Your task to perform on an android device: make emails show in primary in the gmail app Image 0: 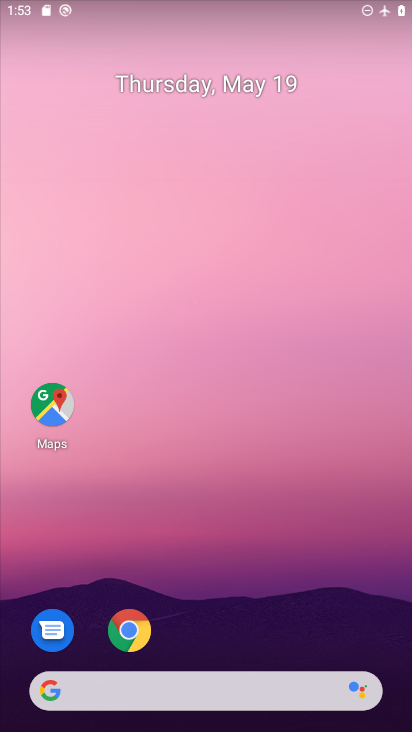
Step 0: drag from (176, 656) to (96, 184)
Your task to perform on an android device: make emails show in primary in the gmail app Image 1: 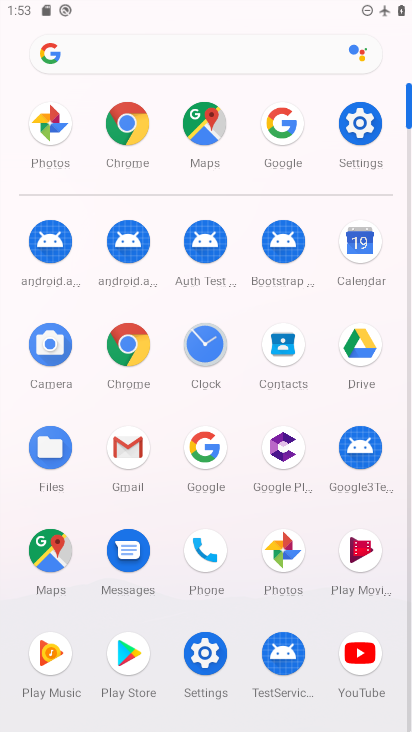
Step 1: click (121, 447)
Your task to perform on an android device: make emails show in primary in the gmail app Image 2: 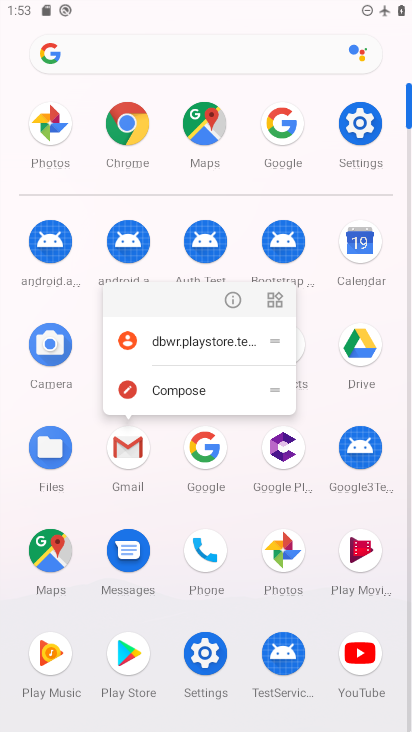
Step 2: click (116, 456)
Your task to perform on an android device: make emails show in primary in the gmail app Image 3: 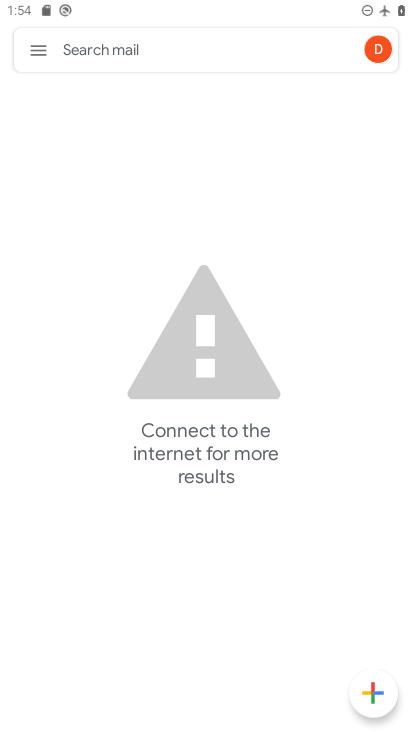
Step 3: click (37, 40)
Your task to perform on an android device: make emails show in primary in the gmail app Image 4: 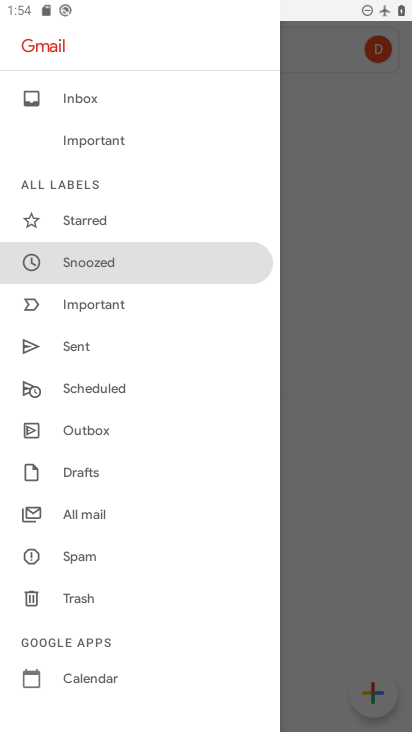
Step 4: drag from (99, 224) to (101, 635)
Your task to perform on an android device: make emails show in primary in the gmail app Image 5: 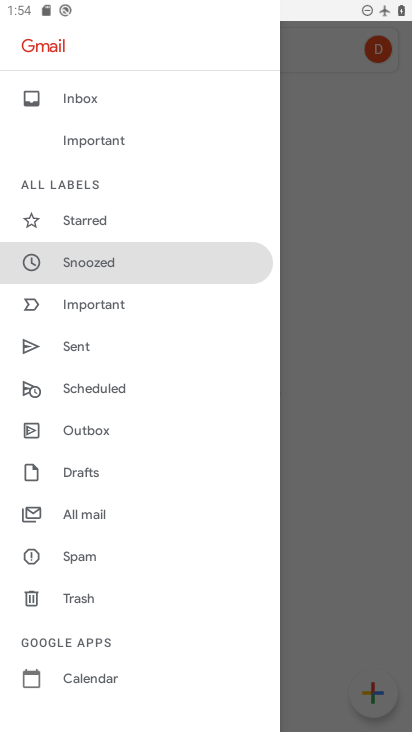
Step 5: drag from (106, 636) to (51, 103)
Your task to perform on an android device: make emails show in primary in the gmail app Image 6: 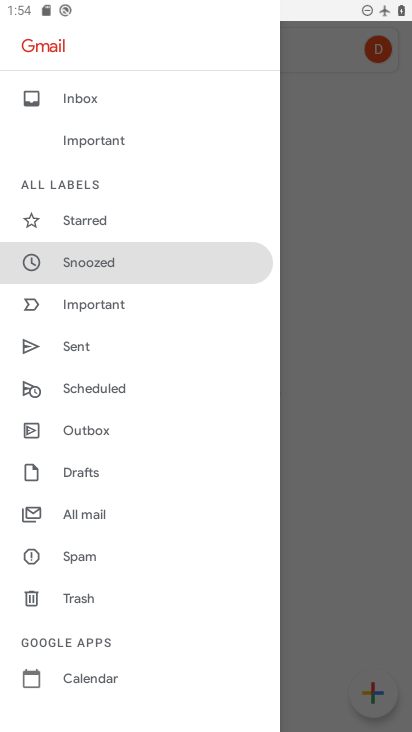
Step 6: drag from (115, 546) to (117, 98)
Your task to perform on an android device: make emails show in primary in the gmail app Image 7: 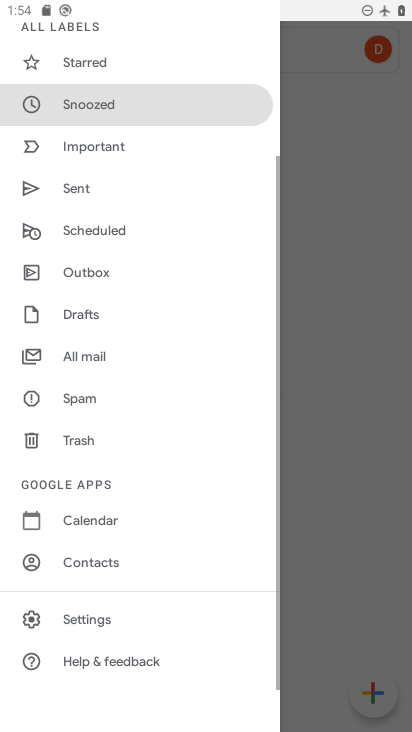
Step 7: click (72, 624)
Your task to perform on an android device: make emails show in primary in the gmail app Image 8: 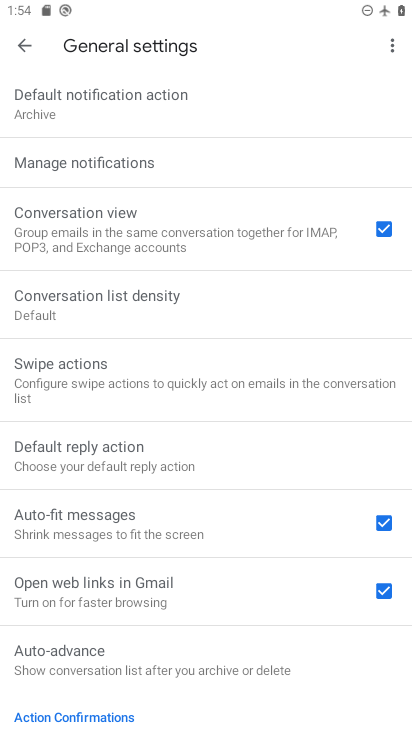
Step 8: click (7, 34)
Your task to perform on an android device: make emails show in primary in the gmail app Image 9: 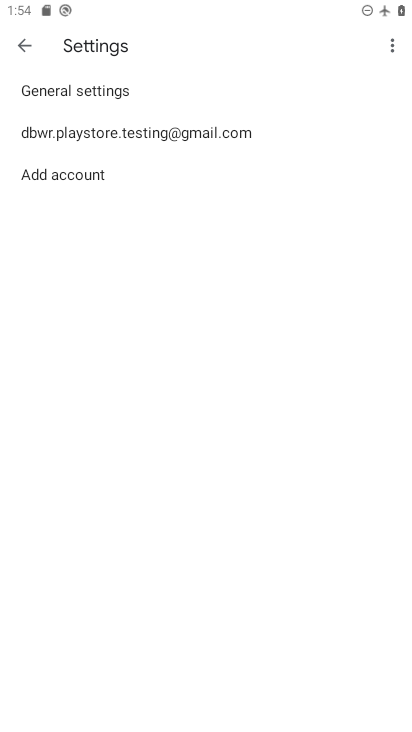
Step 9: click (71, 132)
Your task to perform on an android device: make emails show in primary in the gmail app Image 10: 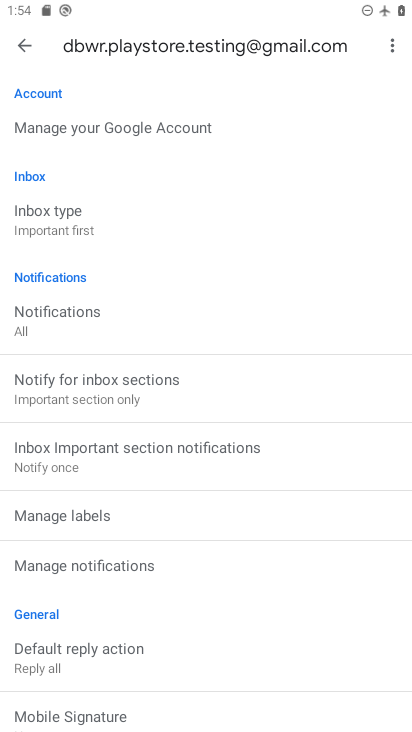
Step 10: click (75, 237)
Your task to perform on an android device: make emails show in primary in the gmail app Image 11: 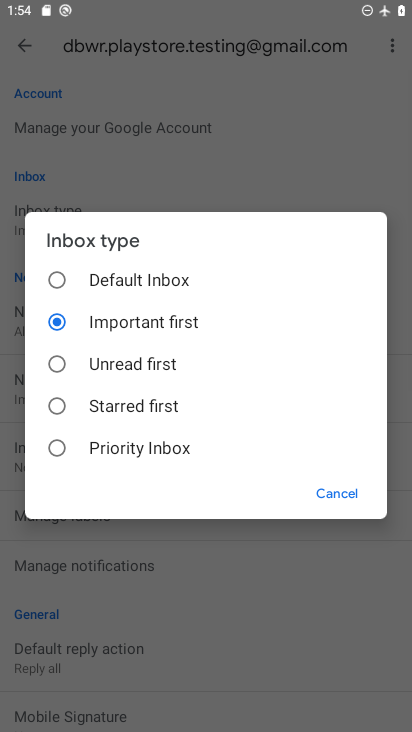
Step 11: click (102, 289)
Your task to perform on an android device: make emails show in primary in the gmail app Image 12: 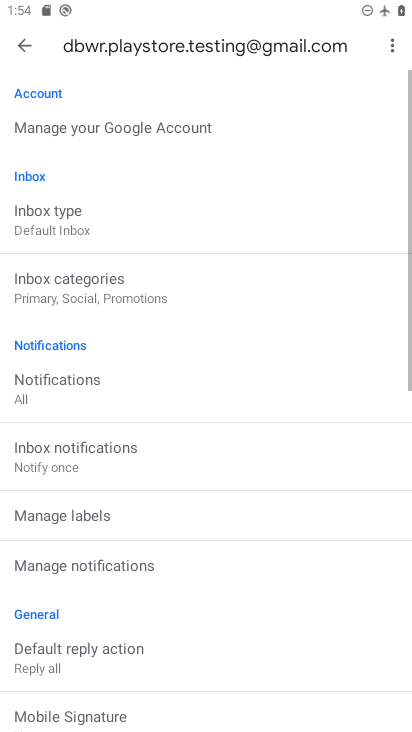
Step 12: click (27, 30)
Your task to perform on an android device: make emails show in primary in the gmail app Image 13: 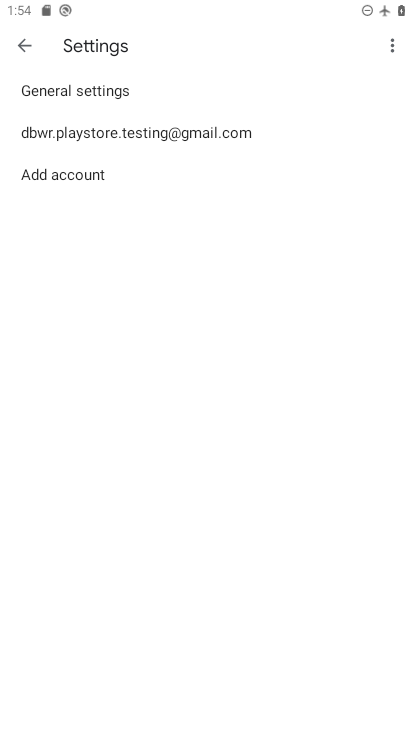
Step 13: click (28, 34)
Your task to perform on an android device: make emails show in primary in the gmail app Image 14: 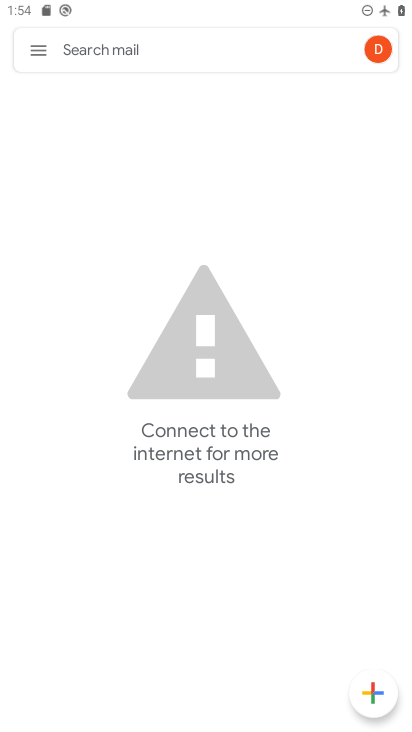
Step 14: click (26, 38)
Your task to perform on an android device: make emails show in primary in the gmail app Image 15: 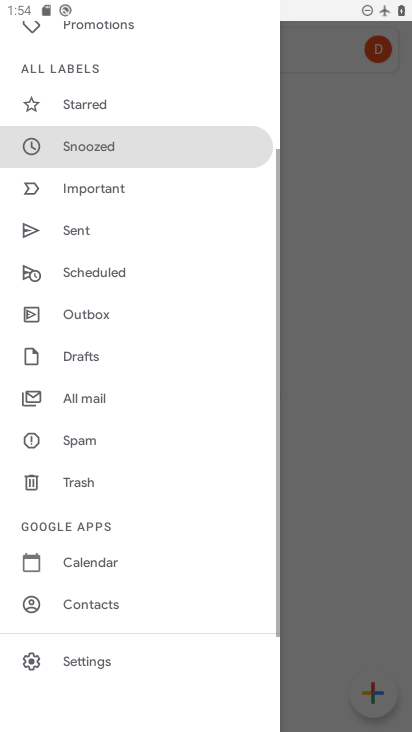
Step 15: drag from (76, 114) to (71, 596)
Your task to perform on an android device: make emails show in primary in the gmail app Image 16: 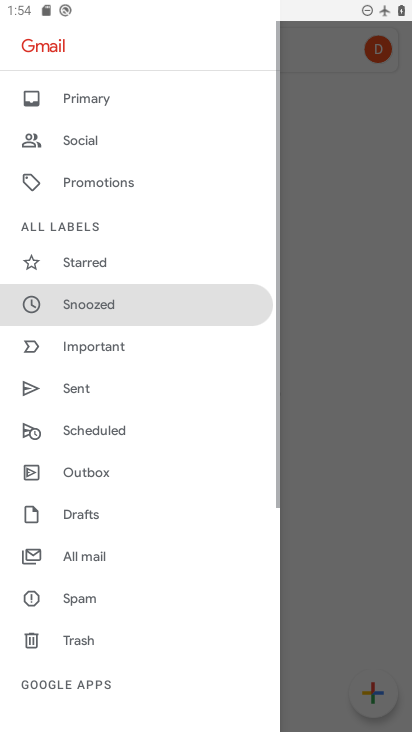
Step 16: click (112, 102)
Your task to perform on an android device: make emails show in primary in the gmail app Image 17: 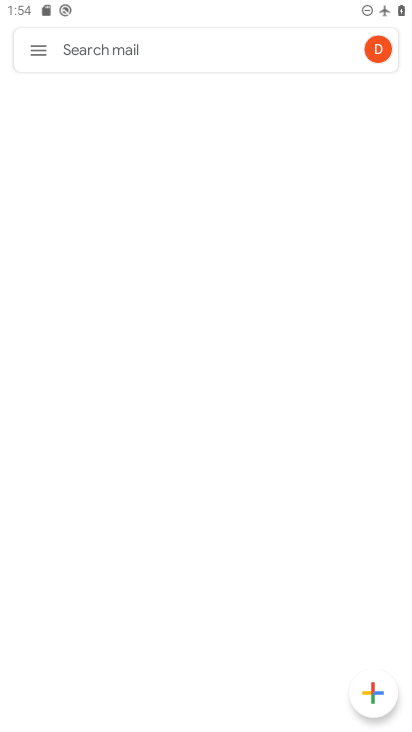
Step 17: task complete